Your task to perform on an android device: Open Wikipedia Image 0: 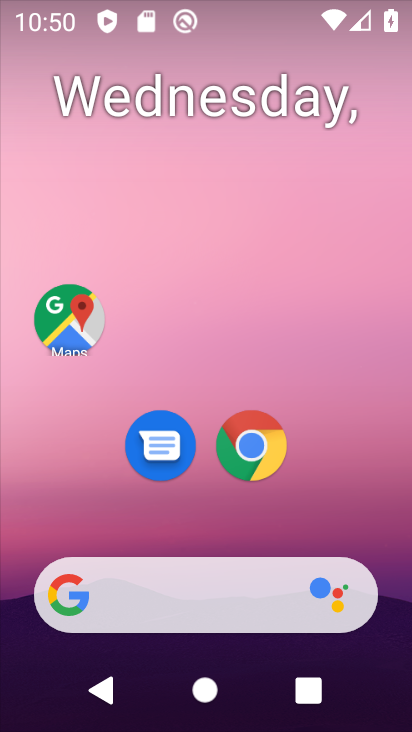
Step 0: click (277, 480)
Your task to perform on an android device: Open Wikipedia Image 1: 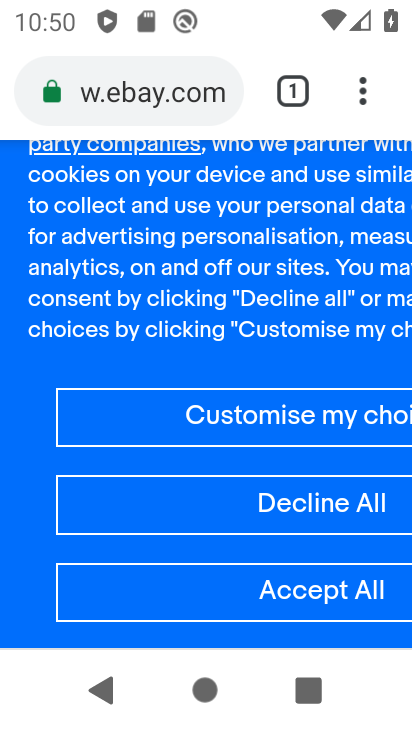
Step 1: click (306, 83)
Your task to perform on an android device: Open Wikipedia Image 2: 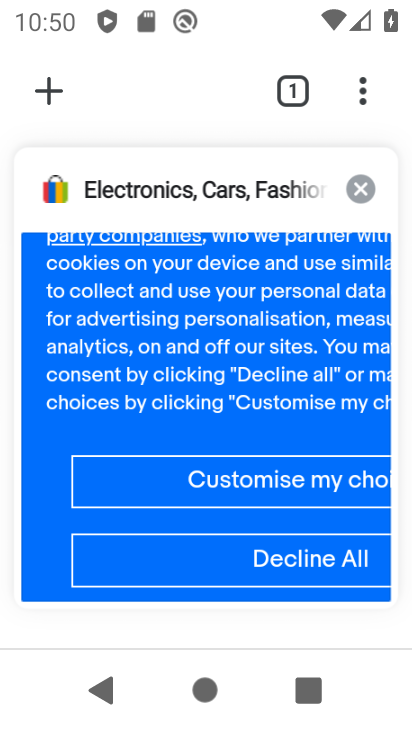
Step 2: click (47, 103)
Your task to perform on an android device: Open Wikipedia Image 3: 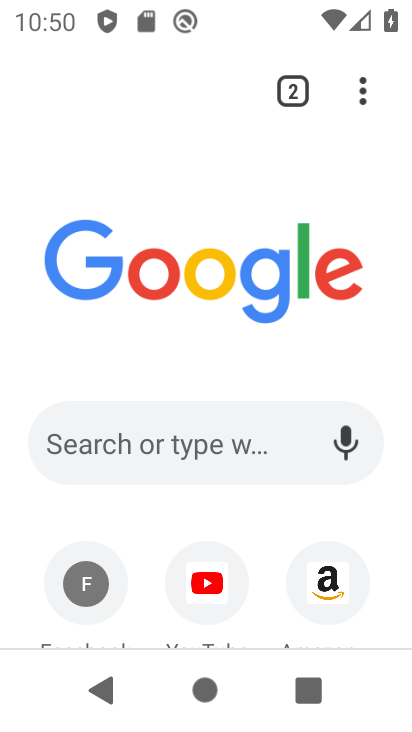
Step 3: drag from (147, 611) to (203, 167)
Your task to perform on an android device: Open Wikipedia Image 4: 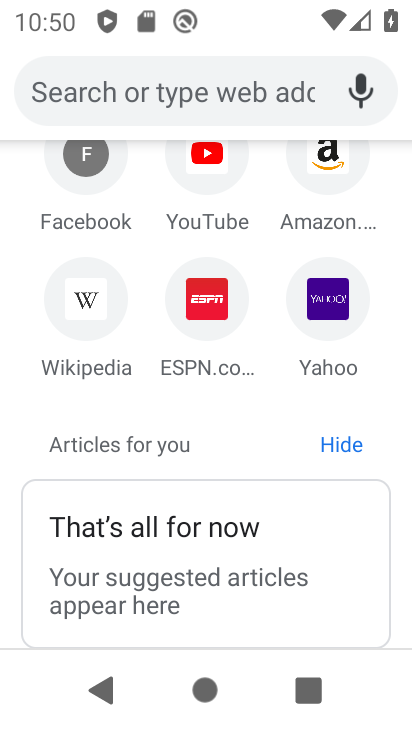
Step 4: click (104, 269)
Your task to perform on an android device: Open Wikipedia Image 5: 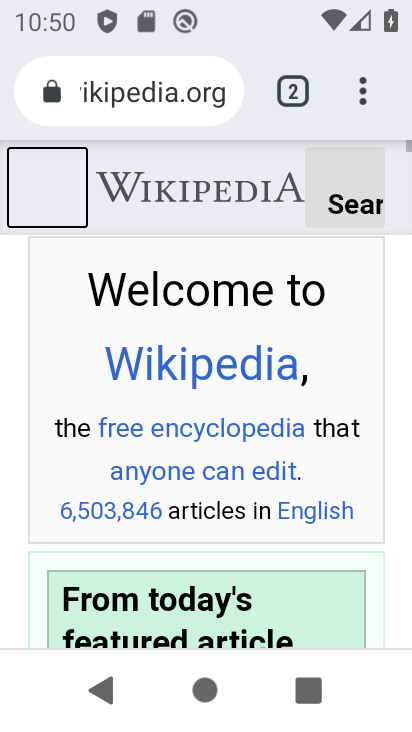
Step 5: task complete